Your task to perform on an android device: turn off airplane mode Image 0: 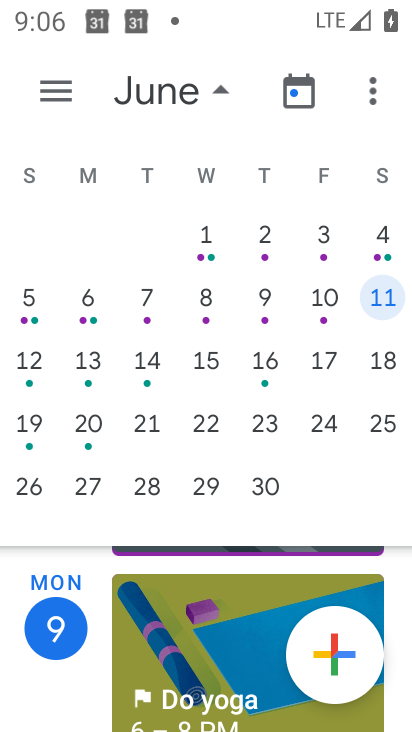
Step 0: press home button
Your task to perform on an android device: turn off airplane mode Image 1: 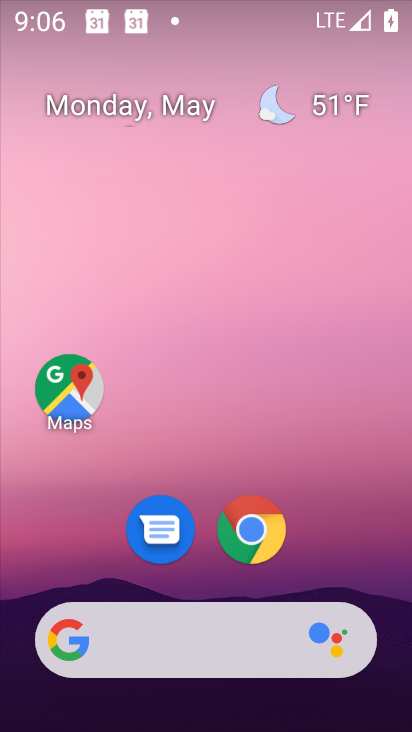
Step 1: drag from (1, 728) to (345, 139)
Your task to perform on an android device: turn off airplane mode Image 2: 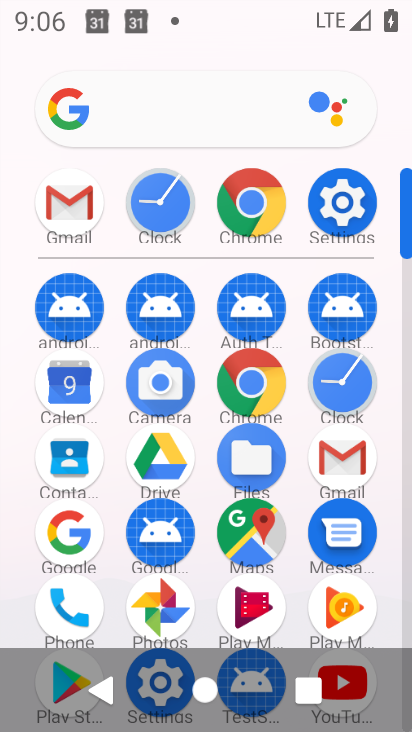
Step 2: click (336, 198)
Your task to perform on an android device: turn off airplane mode Image 3: 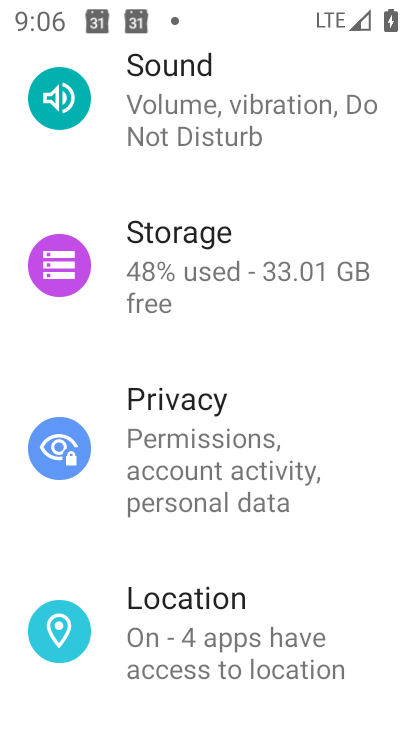
Step 3: drag from (245, 135) to (205, 642)
Your task to perform on an android device: turn off airplane mode Image 4: 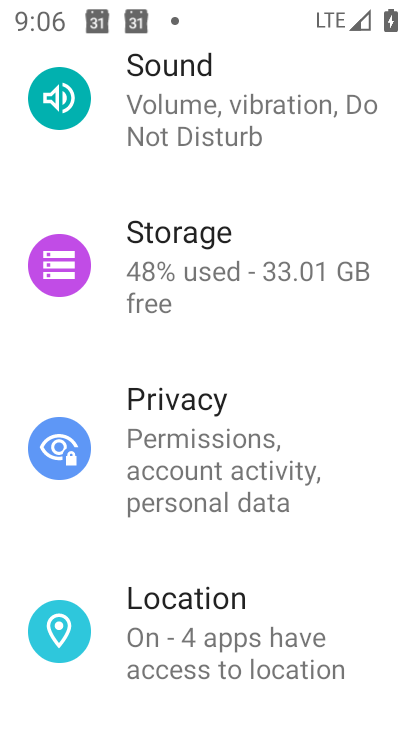
Step 4: drag from (239, 126) to (241, 620)
Your task to perform on an android device: turn off airplane mode Image 5: 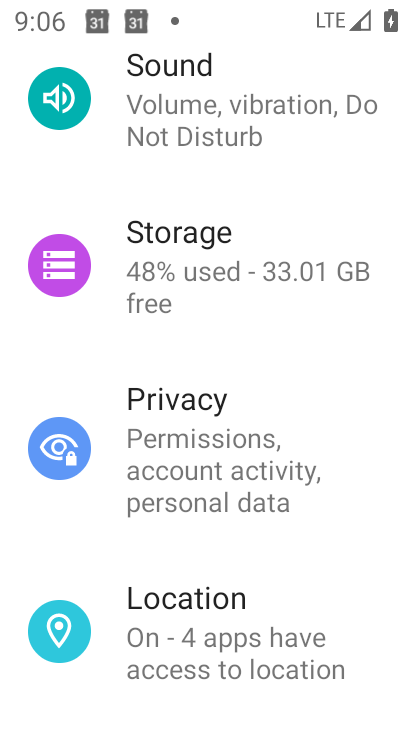
Step 5: drag from (317, 89) to (238, 658)
Your task to perform on an android device: turn off airplane mode Image 6: 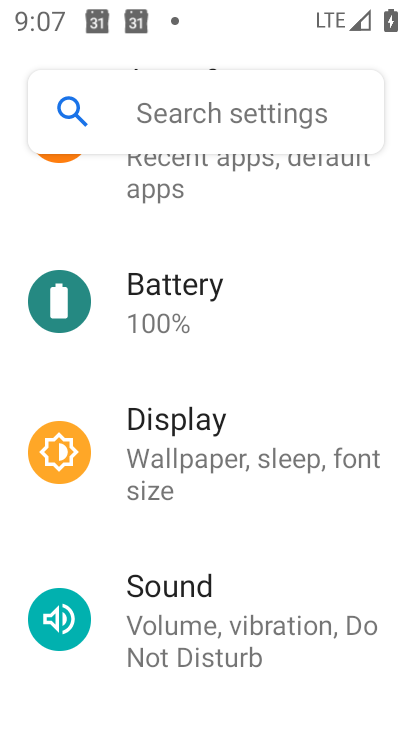
Step 6: drag from (296, 148) to (288, 578)
Your task to perform on an android device: turn off airplane mode Image 7: 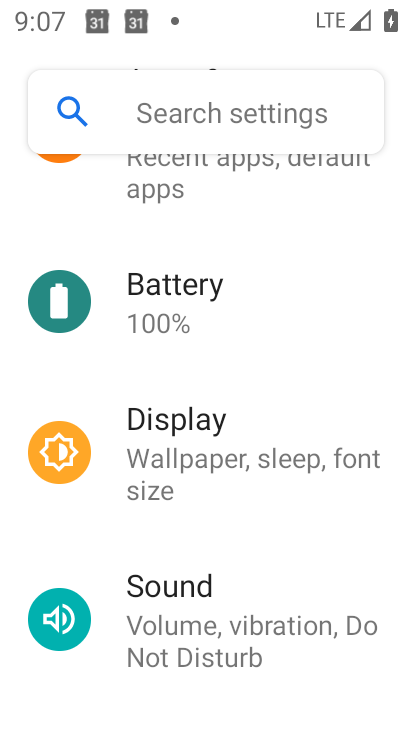
Step 7: drag from (271, 196) to (227, 639)
Your task to perform on an android device: turn off airplane mode Image 8: 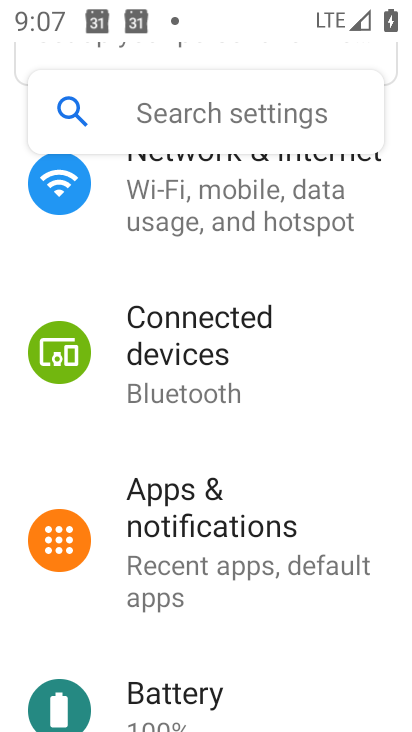
Step 8: drag from (292, 190) to (300, 547)
Your task to perform on an android device: turn off airplane mode Image 9: 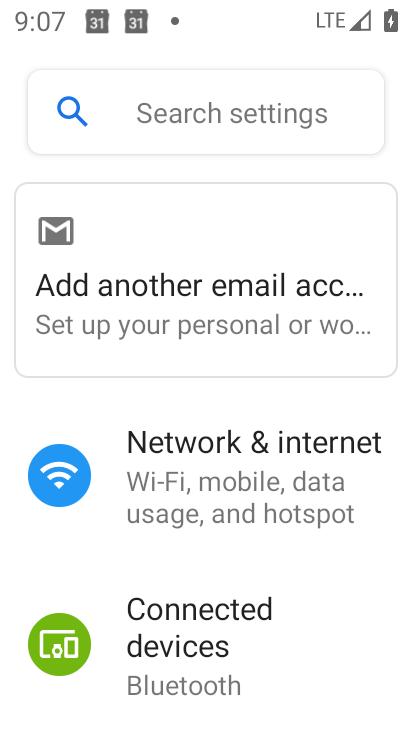
Step 9: click (208, 463)
Your task to perform on an android device: turn off airplane mode Image 10: 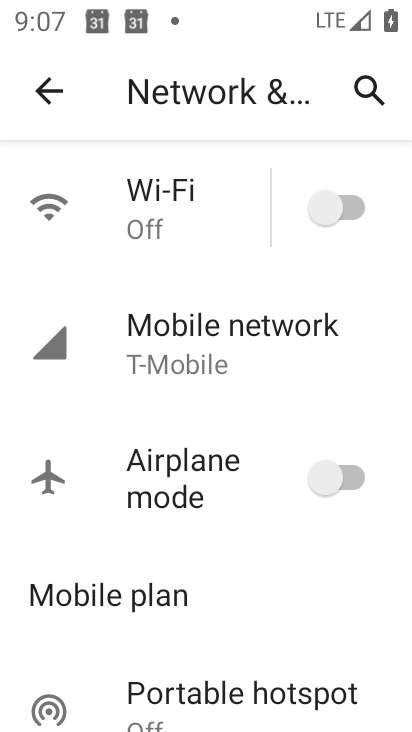
Step 10: task complete